Your task to perform on an android device: turn on improve location accuracy Image 0: 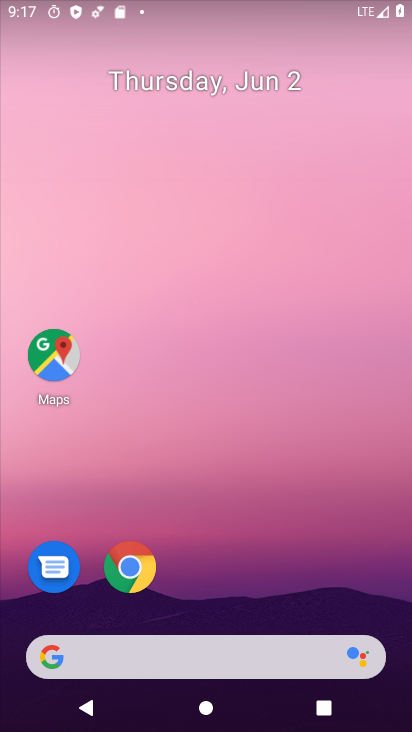
Step 0: drag from (313, 521) to (259, 179)
Your task to perform on an android device: turn on improve location accuracy Image 1: 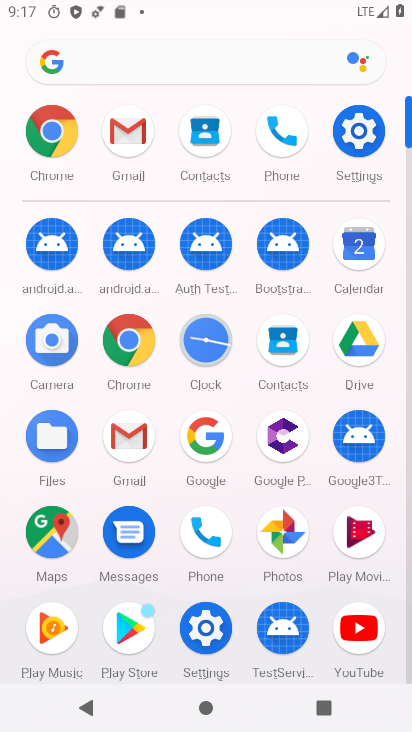
Step 1: click (345, 142)
Your task to perform on an android device: turn on improve location accuracy Image 2: 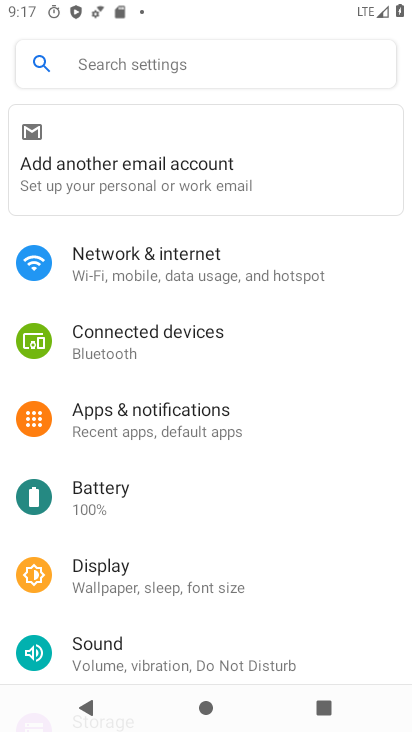
Step 2: drag from (312, 531) to (341, 125)
Your task to perform on an android device: turn on improve location accuracy Image 3: 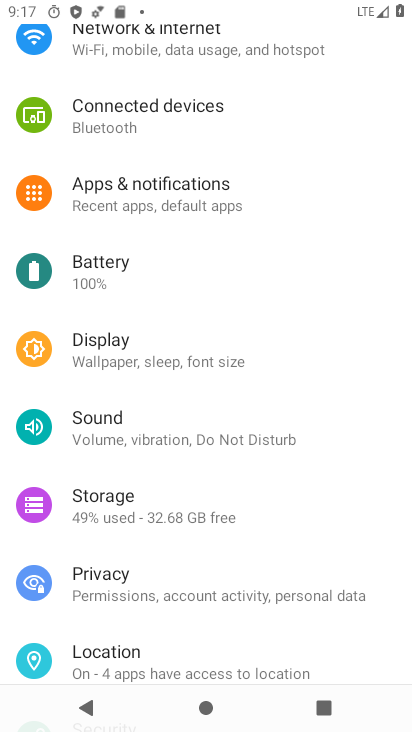
Step 3: click (181, 662)
Your task to perform on an android device: turn on improve location accuracy Image 4: 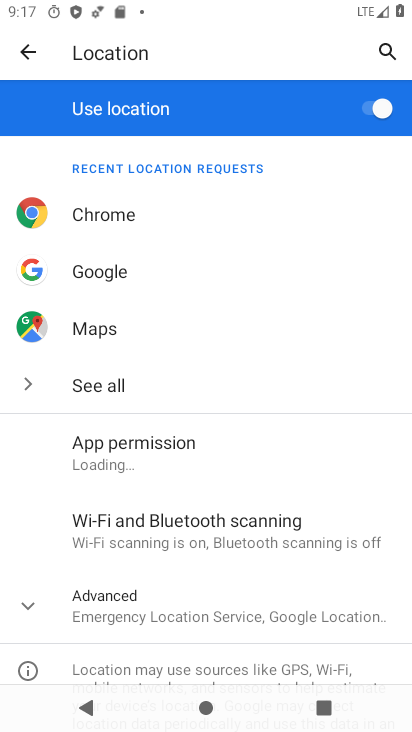
Step 4: click (204, 616)
Your task to perform on an android device: turn on improve location accuracy Image 5: 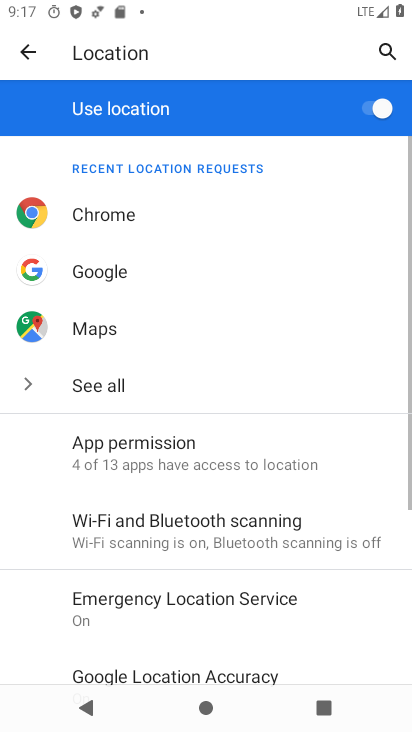
Step 5: drag from (207, 632) to (250, 347)
Your task to perform on an android device: turn on improve location accuracy Image 6: 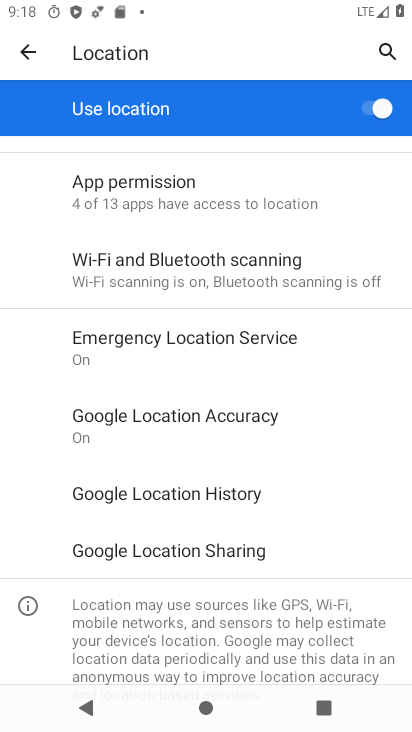
Step 6: click (247, 420)
Your task to perform on an android device: turn on improve location accuracy Image 7: 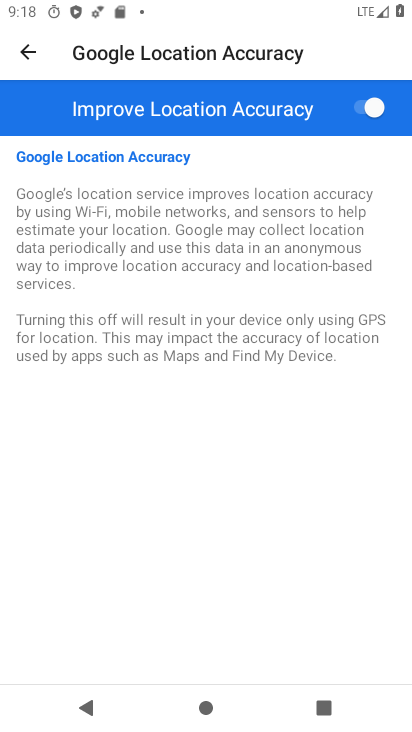
Step 7: task complete